Your task to perform on an android device: change notifications settings Image 0: 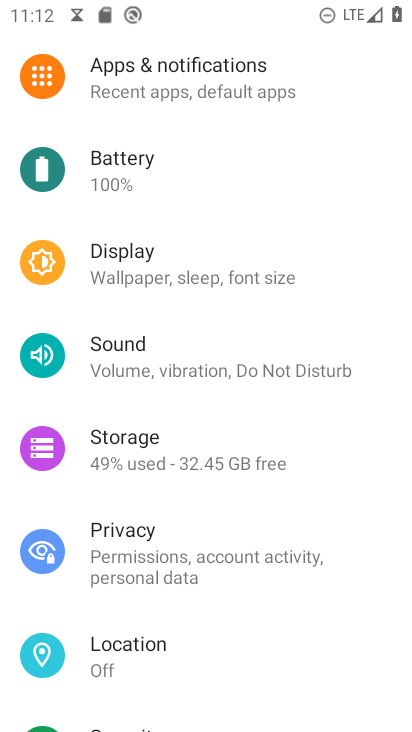
Step 0: press home button
Your task to perform on an android device: change notifications settings Image 1: 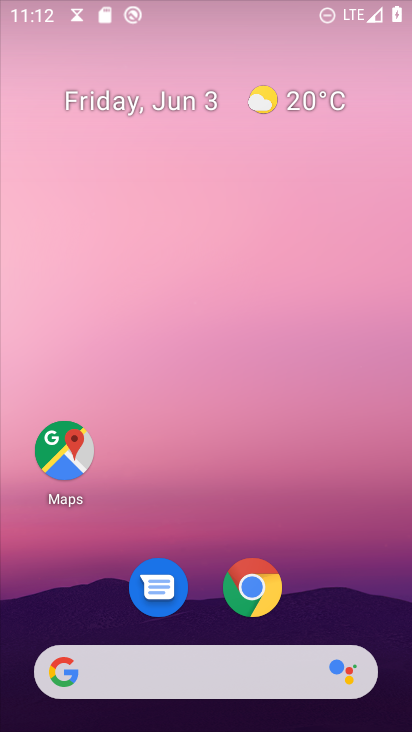
Step 1: drag from (362, 579) to (205, 45)
Your task to perform on an android device: change notifications settings Image 2: 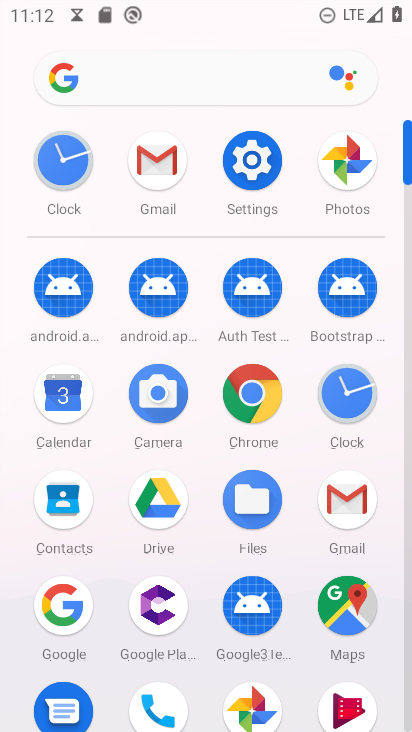
Step 2: click (258, 193)
Your task to perform on an android device: change notifications settings Image 3: 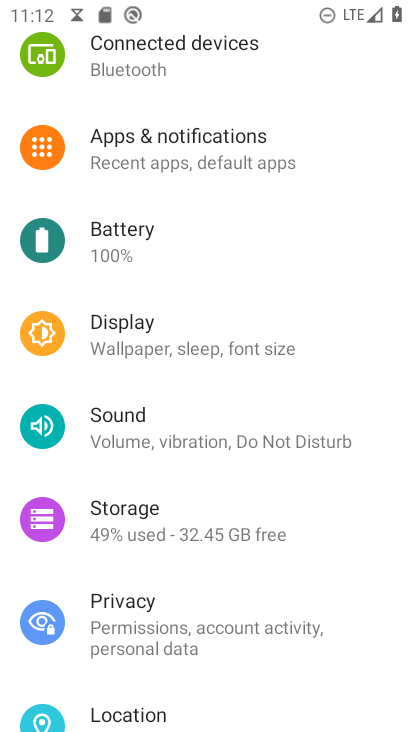
Step 3: click (235, 174)
Your task to perform on an android device: change notifications settings Image 4: 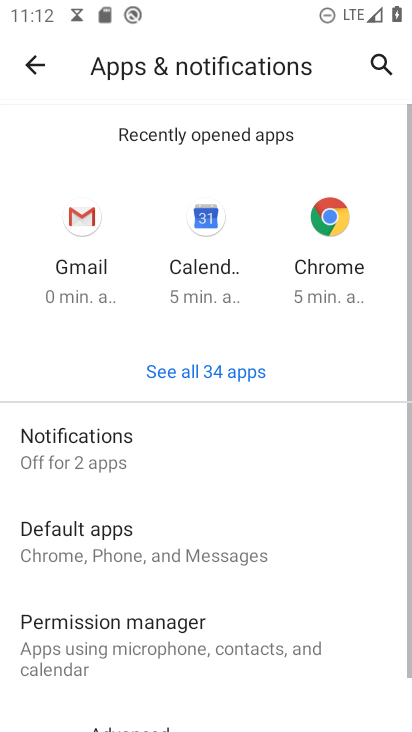
Step 4: click (191, 454)
Your task to perform on an android device: change notifications settings Image 5: 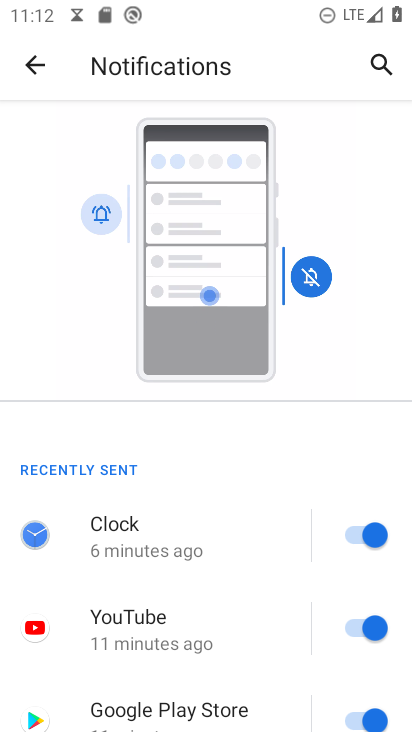
Step 5: drag from (260, 649) to (301, 278)
Your task to perform on an android device: change notifications settings Image 6: 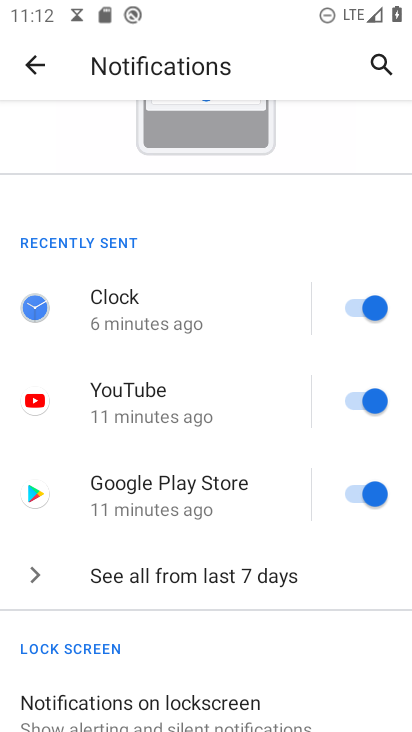
Step 6: click (364, 305)
Your task to perform on an android device: change notifications settings Image 7: 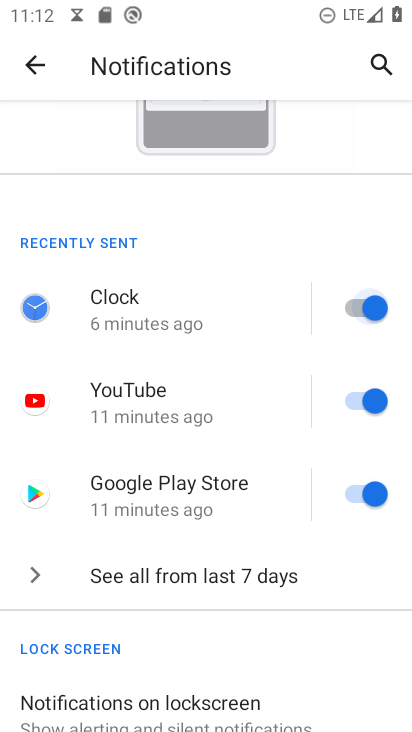
Step 7: click (364, 389)
Your task to perform on an android device: change notifications settings Image 8: 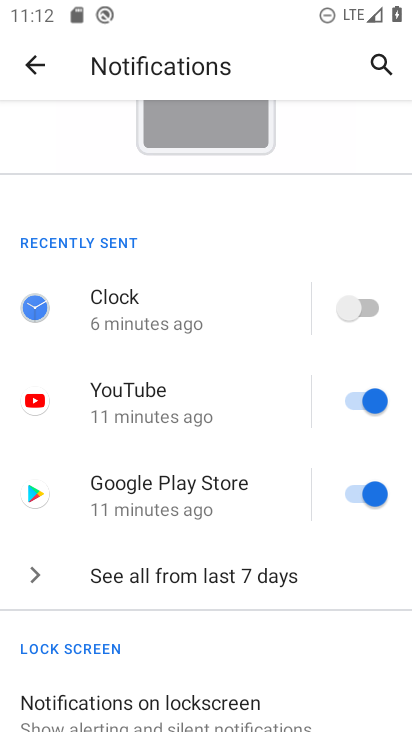
Step 8: click (359, 504)
Your task to perform on an android device: change notifications settings Image 9: 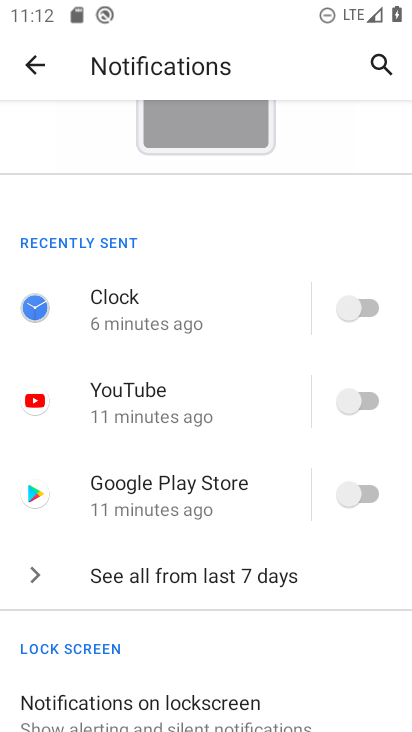
Step 9: task complete